Your task to perform on an android device: open the mobile data screen to see how much data has been used Image 0: 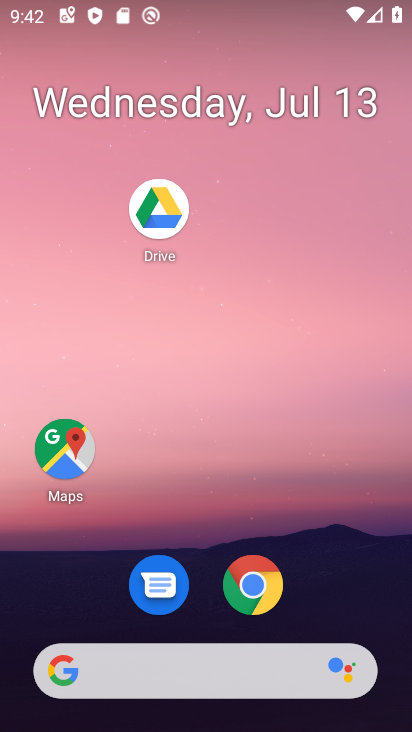
Step 0: press home button
Your task to perform on an android device: open the mobile data screen to see how much data has been used Image 1: 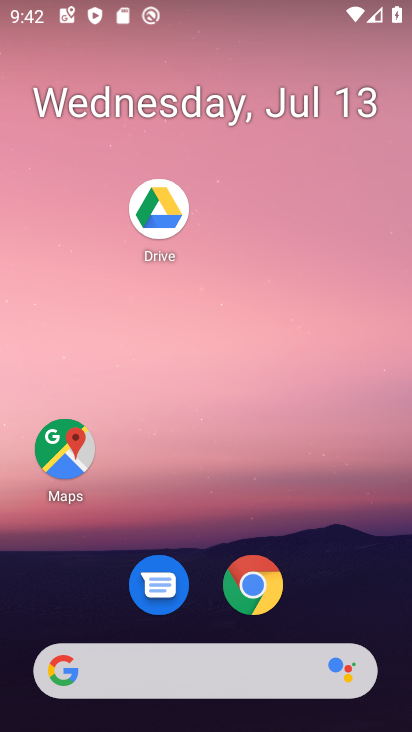
Step 1: drag from (188, 669) to (310, 73)
Your task to perform on an android device: open the mobile data screen to see how much data has been used Image 2: 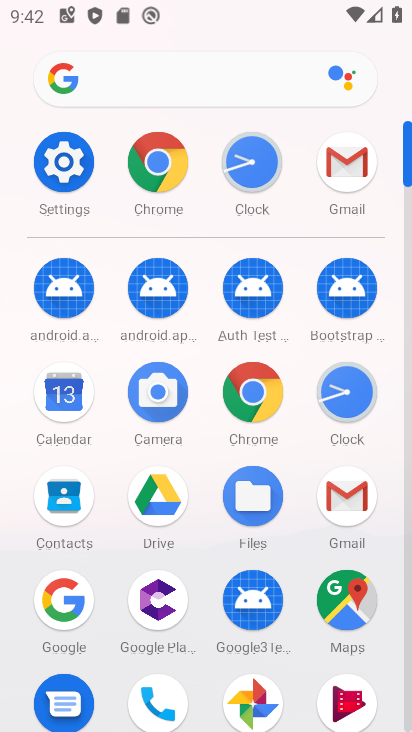
Step 2: click (49, 173)
Your task to perform on an android device: open the mobile data screen to see how much data has been used Image 3: 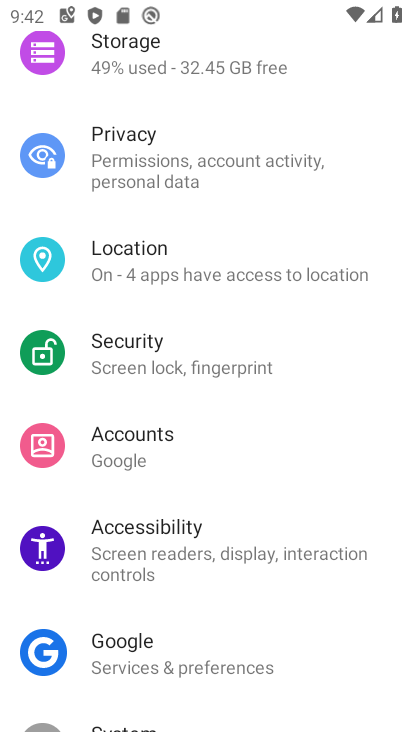
Step 3: drag from (285, 115) to (234, 584)
Your task to perform on an android device: open the mobile data screen to see how much data has been used Image 4: 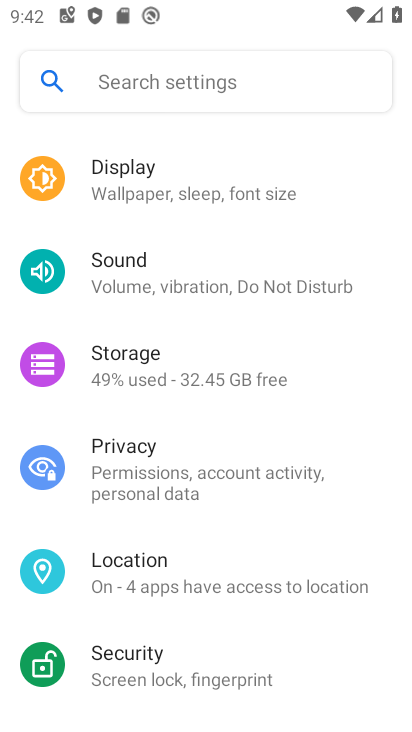
Step 4: drag from (283, 150) to (267, 617)
Your task to perform on an android device: open the mobile data screen to see how much data has been used Image 5: 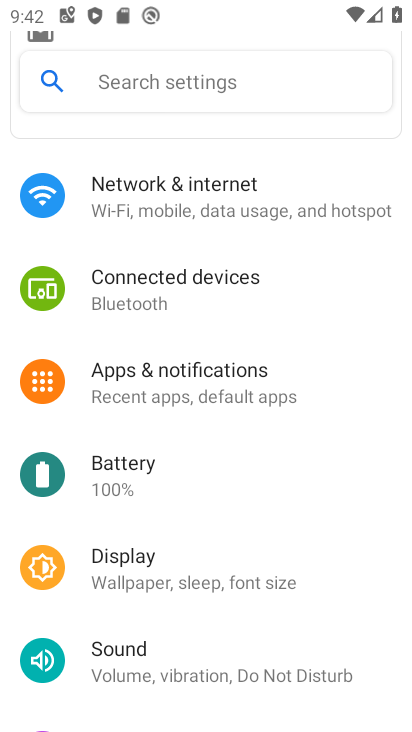
Step 5: click (203, 197)
Your task to perform on an android device: open the mobile data screen to see how much data has been used Image 6: 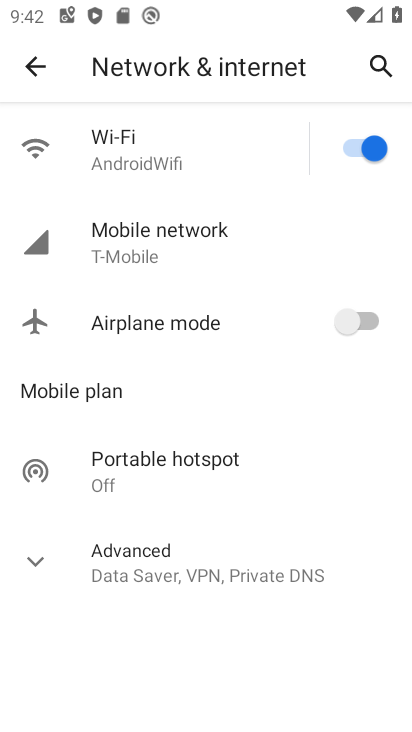
Step 6: click (178, 250)
Your task to perform on an android device: open the mobile data screen to see how much data has been used Image 7: 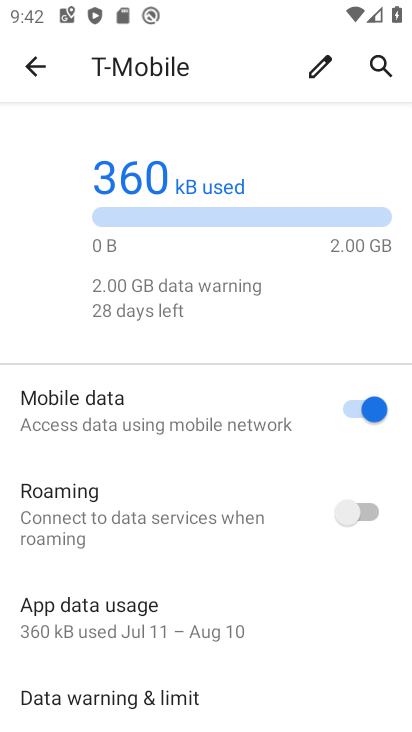
Step 7: task complete